Your task to perform on an android device: Open Youtube and go to the subscriptions tab Image 0: 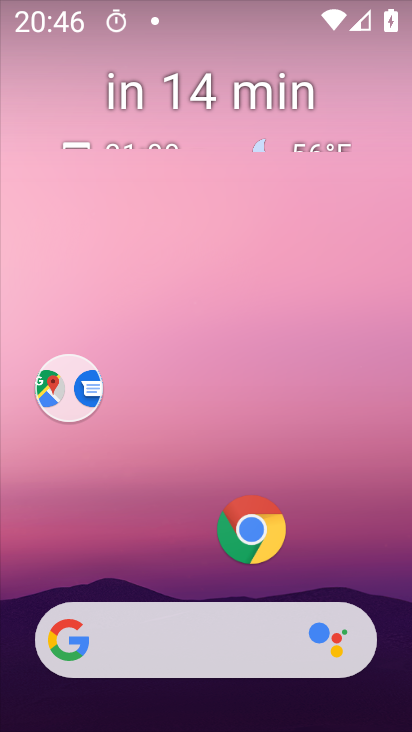
Step 0: drag from (192, 575) to (209, 77)
Your task to perform on an android device: Open Youtube and go to the subscriptions tab Image 1: 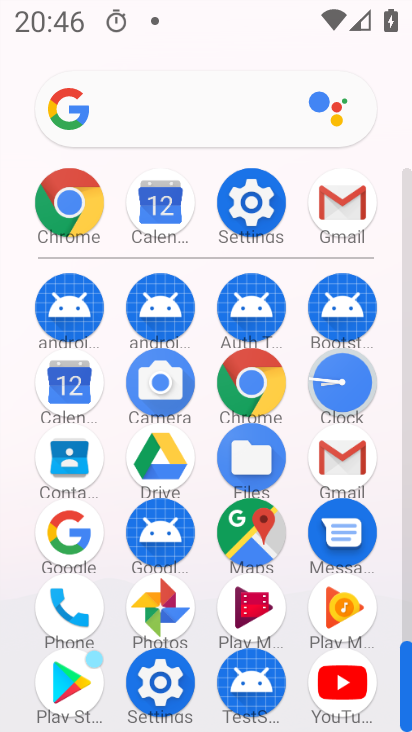
Step 1: click (339, 683)
Your task to perform on an android device: Open Youtube and go to the subscriptions tab Image 2: 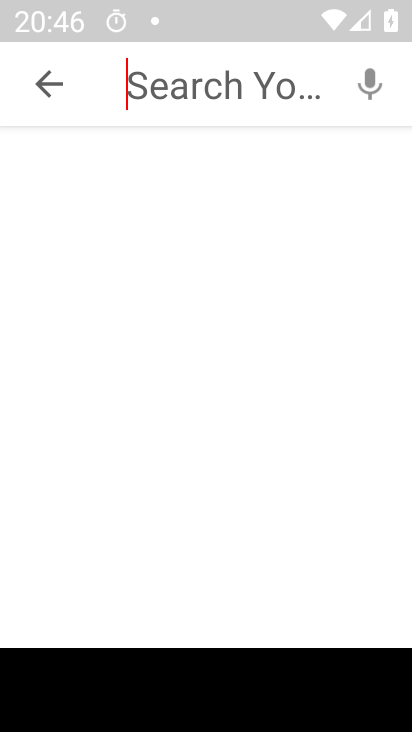
Step 2: press back button
Your task to perform on an android device: Open Youtube and go to the subscriptions tab Image 3: 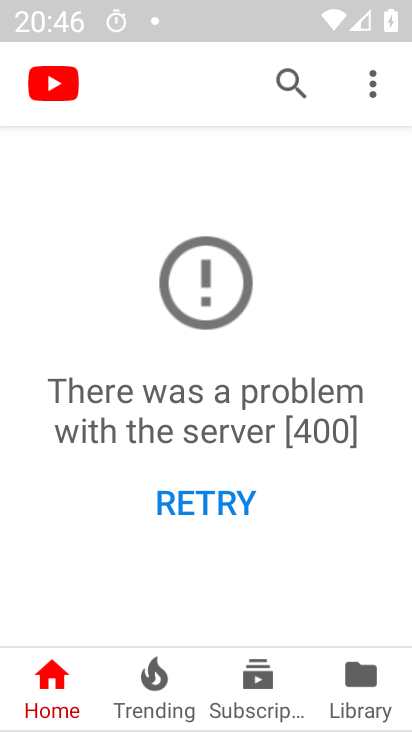
Step 3: click (273, 685)
Your task to perform on an android device: Open Youtube and go to the subscriptions tab Image 4: 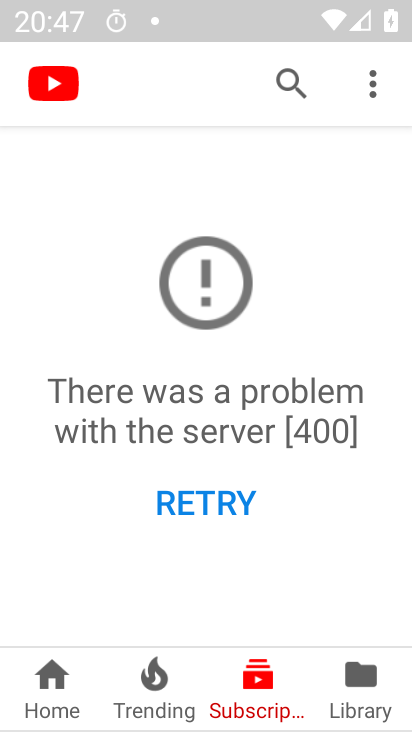
Step 4: task complete